Your task to perform on an android device: Open the map Image 0: 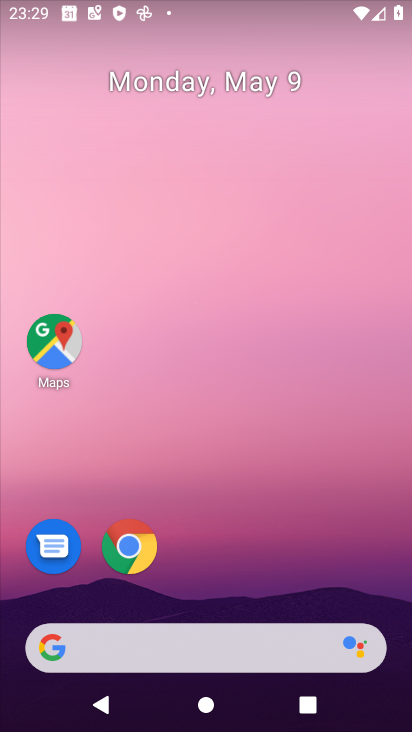
Step 0: click (67, 345)
Your task to perform on an android device: Open the map Image 1: 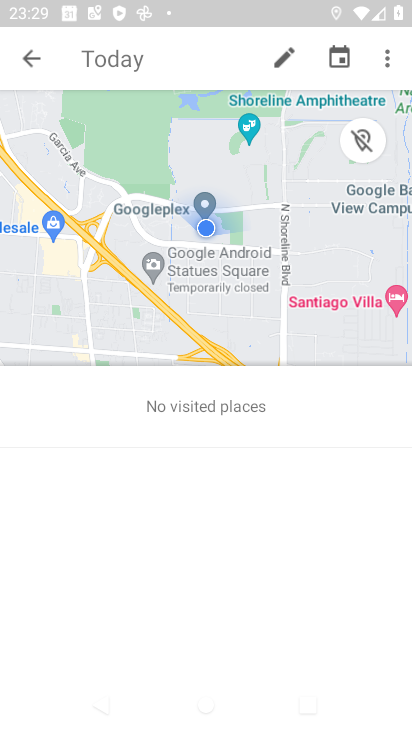
Step 1: task complete